Your task to perform on an android device: Open Amazon Image 0: 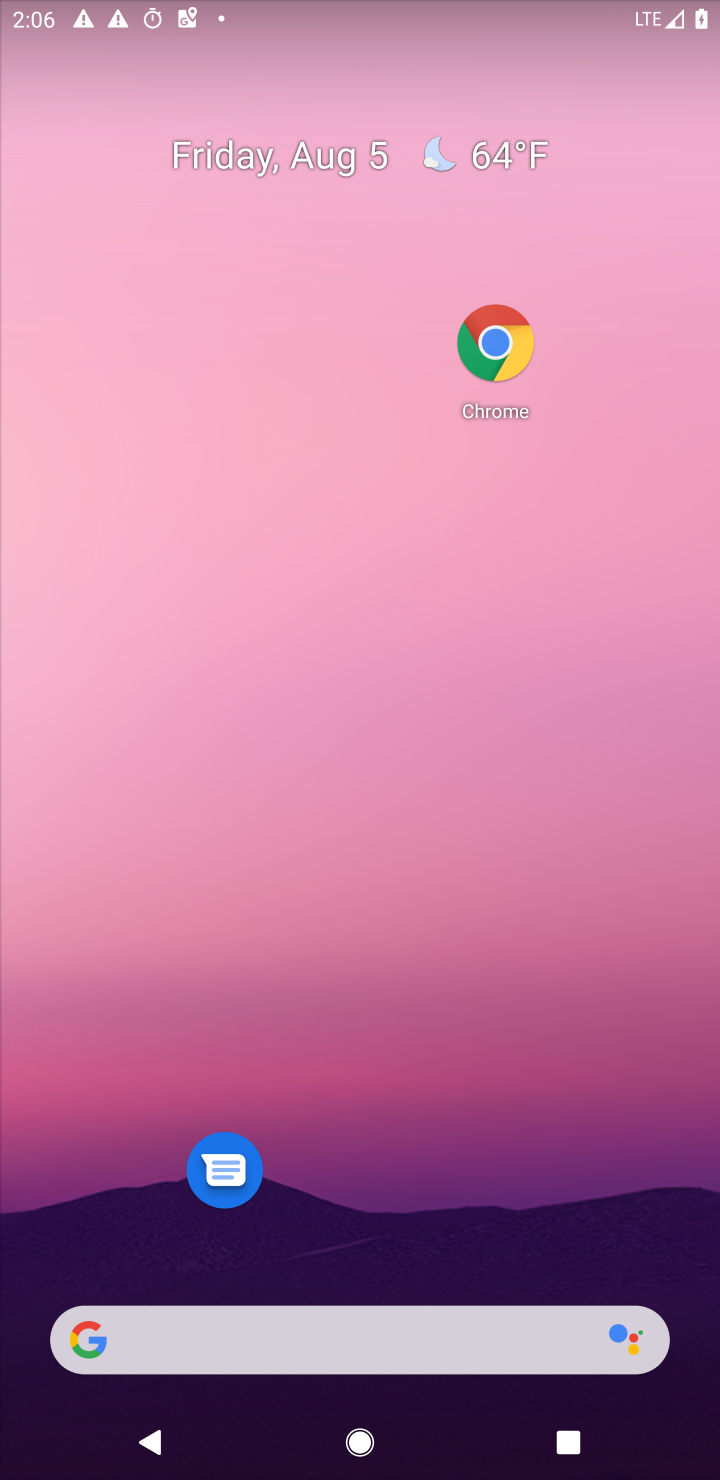
Step 0: drag from (413, 1051) to (347, 130)
Your task to perform on an android device: Open Amazon Image 1: 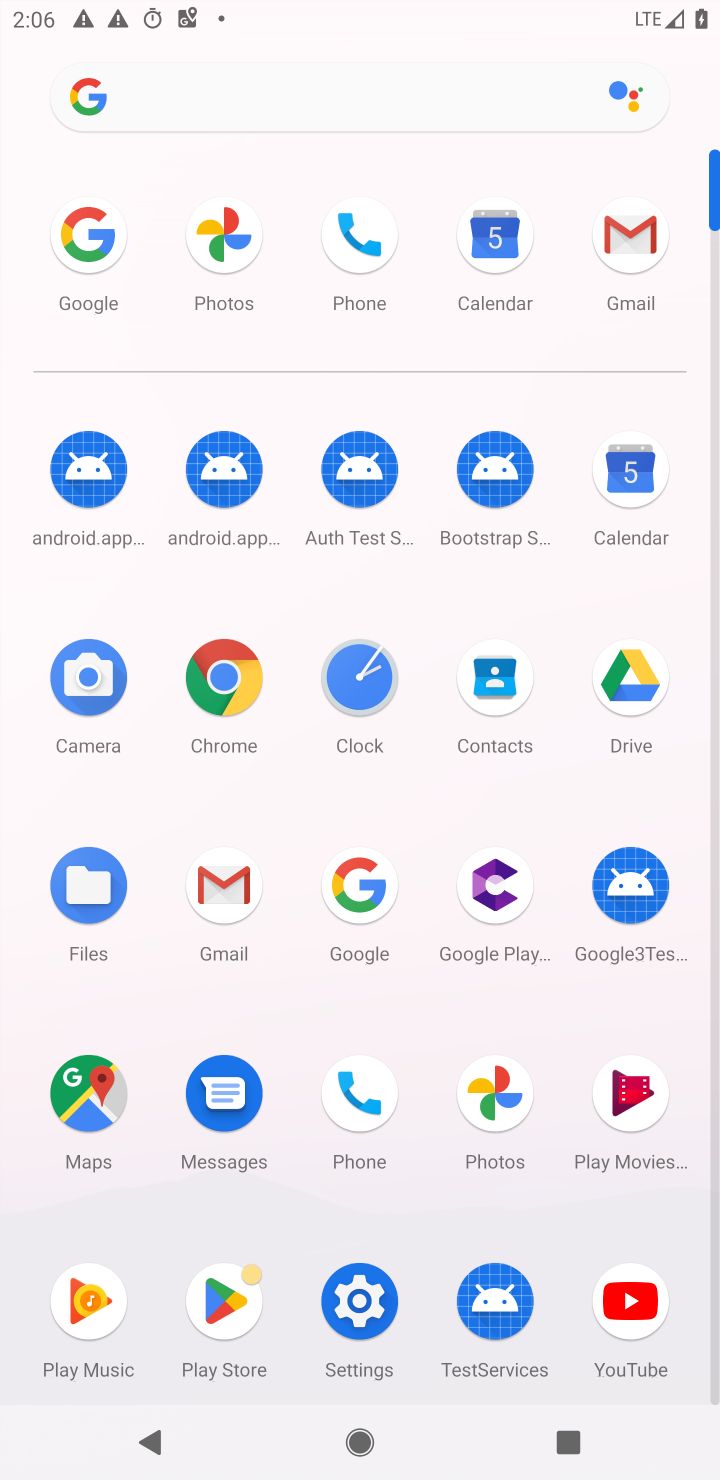
Step 1: click (214, 709)
Your task to perform on an android device: Open Amazon Image 2: 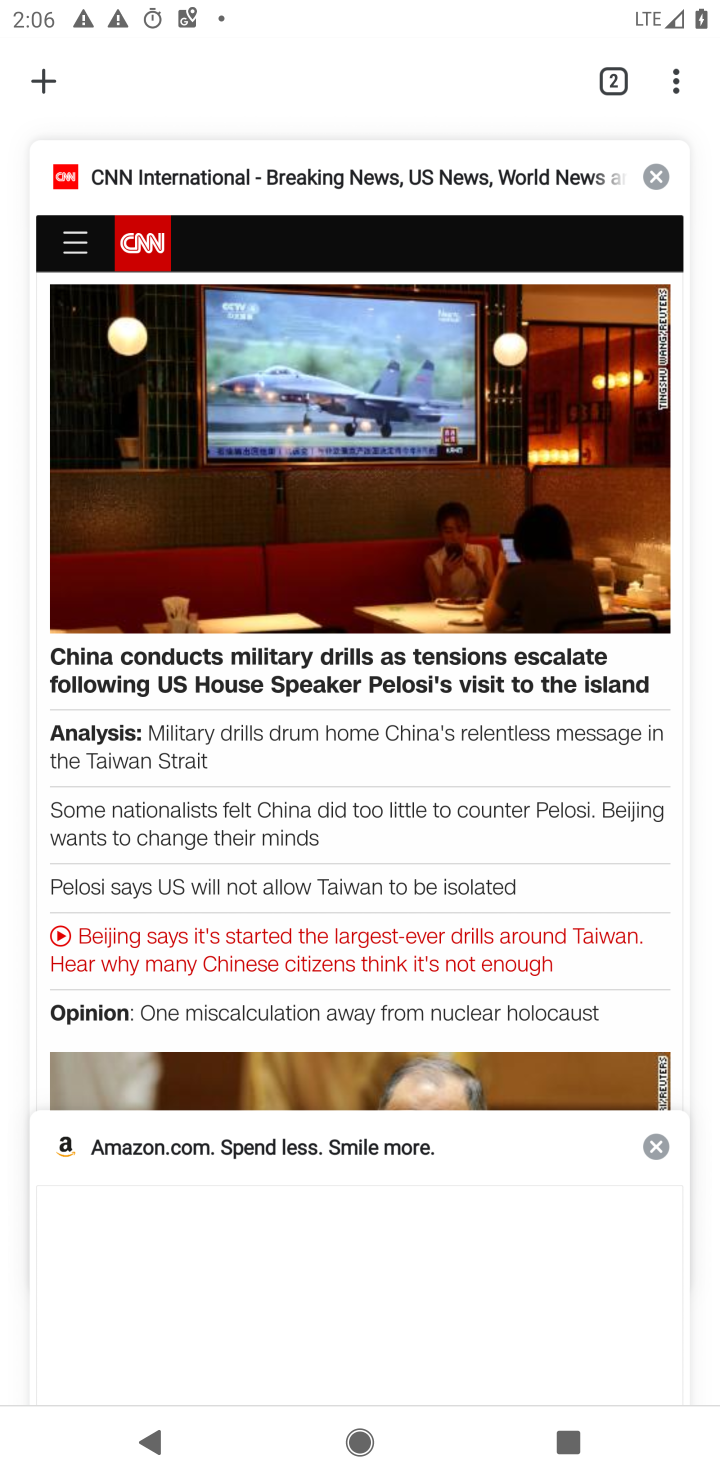
Step 2: click (59, 80)
Your task to perform on an android device: Open Amazon Image 3: 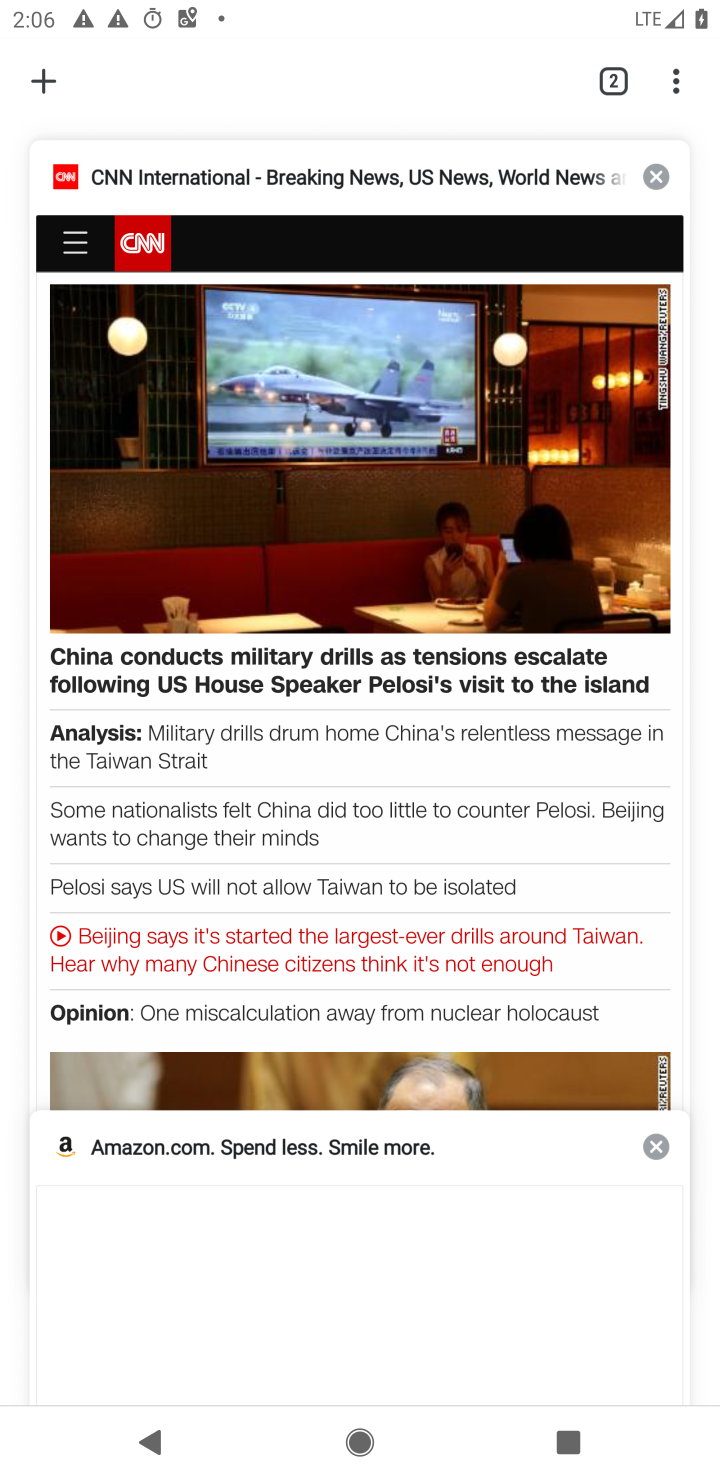
Step 3: click (395, 1204)
Your task to perform on an android device: Open Amazon Image 4: 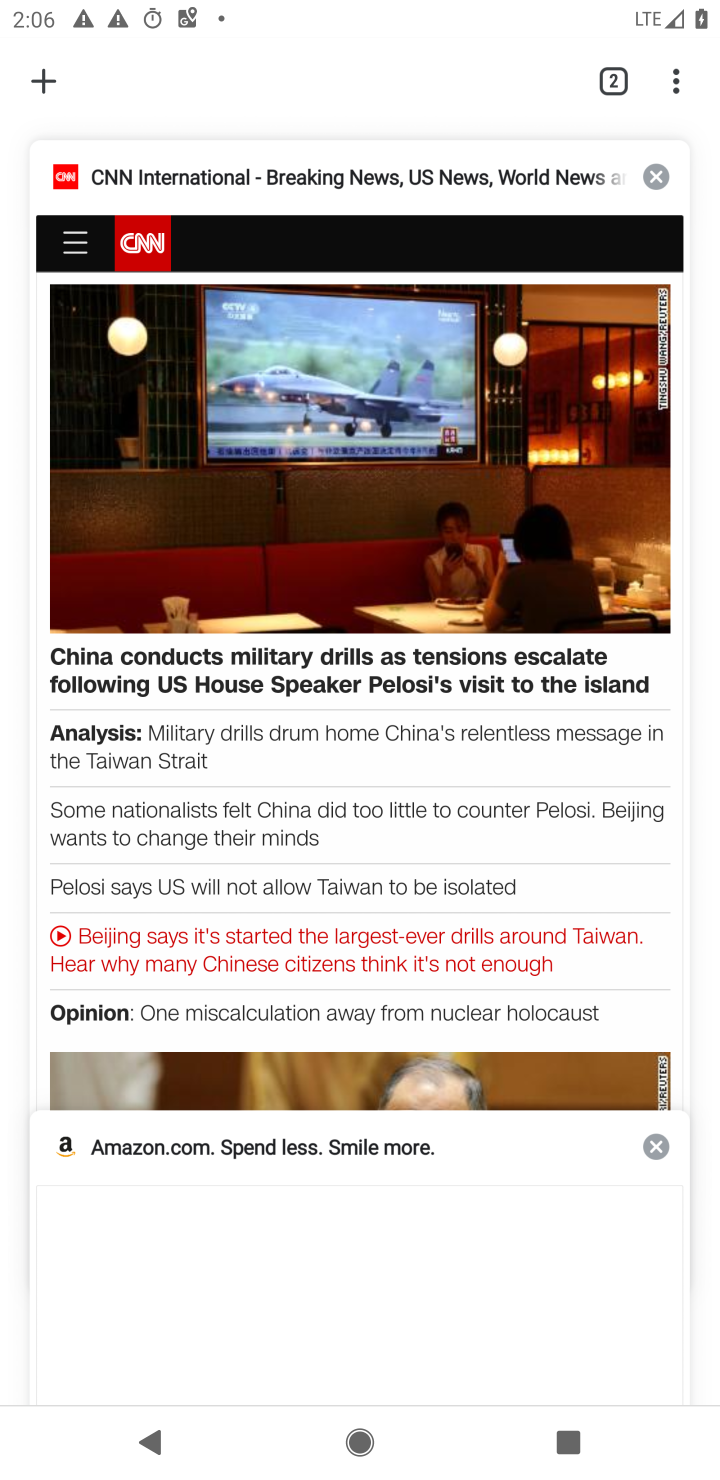
Step 4: click (301, 1163)
Your task to perform on an android device: Open Amazon Image 5: 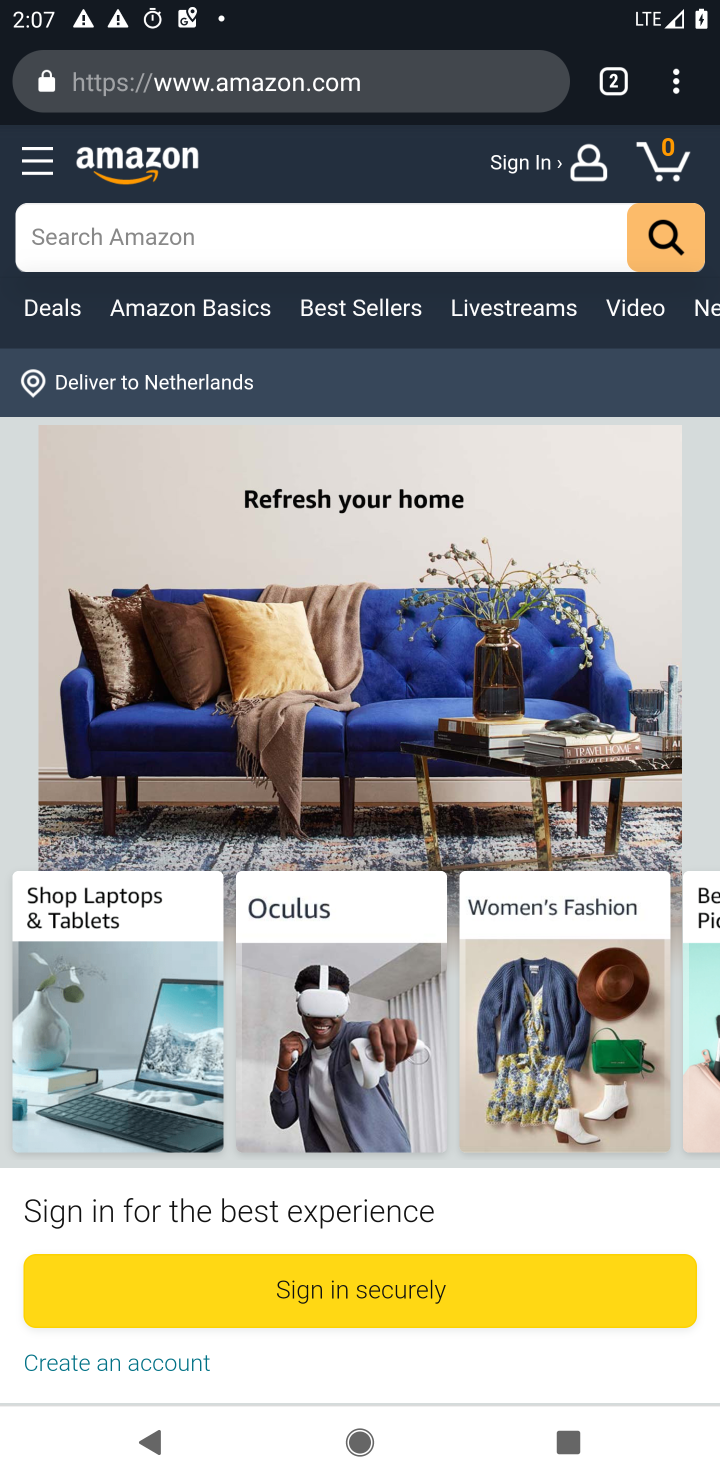
Step 5: task complete